Your task to perform on an android device: change the clock style Image 0: 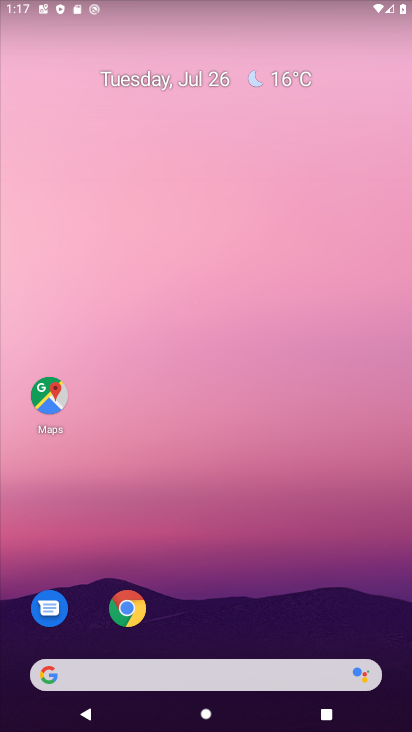
Step 0: task complete